Your task to perform on an android device: Open location settings Image 0: 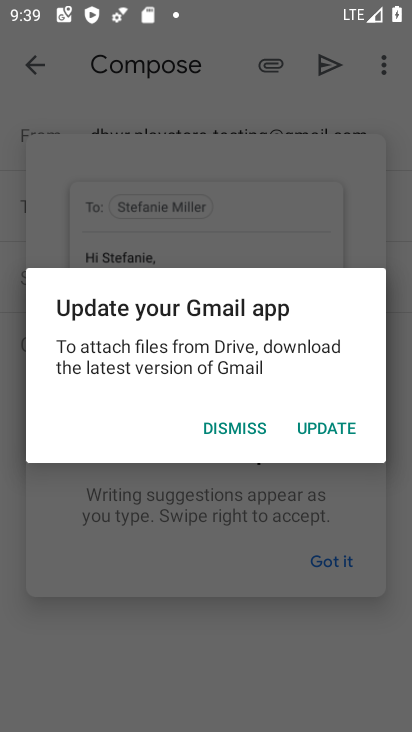
Step 0: press home button
Your task to perform on an android device: Open location settings Image 1: 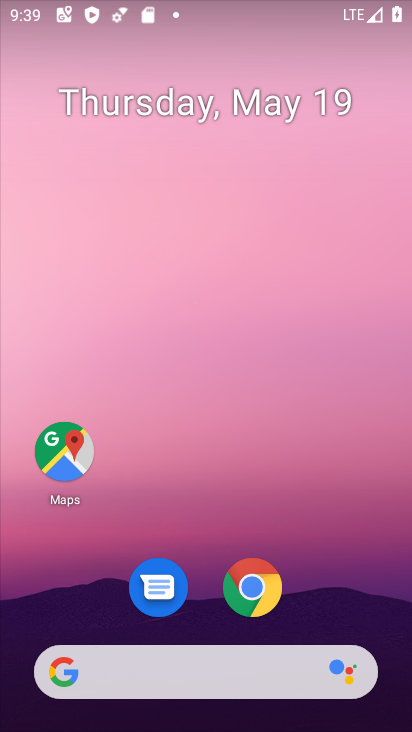
Step 1: drag from (202, 612) to (186, 211)
Your task to perform on an android device: Open location settings Image 2: 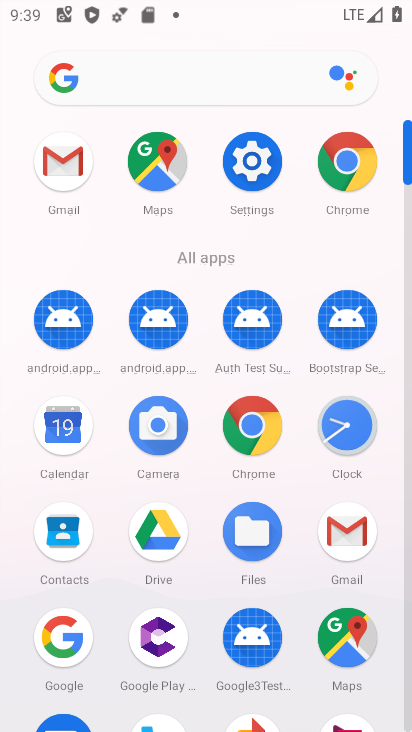
Step 2: click (249, 150)
Your task to perform on an android device: Open location settings Image 3: 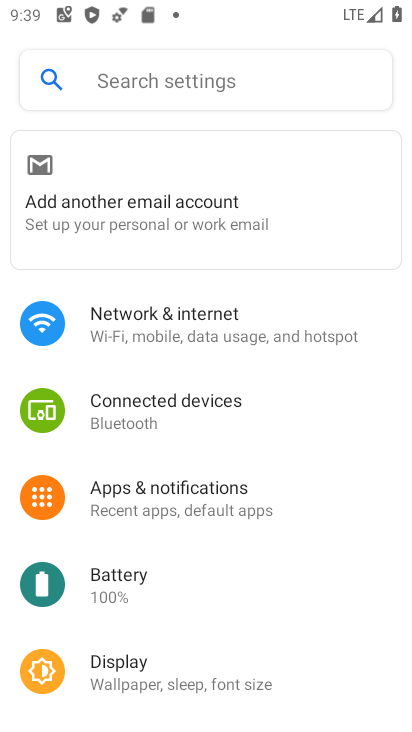
Step 3: drag from (83, 638) to (157, 173)
Your task to perform on an android device: Open location settings Image 4: 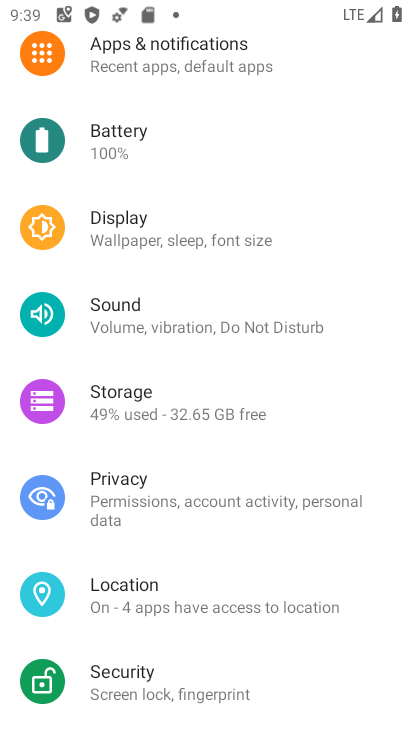
Step 4: click (153, 579)
Your task to perform on an android device: Open location settings Image 5: 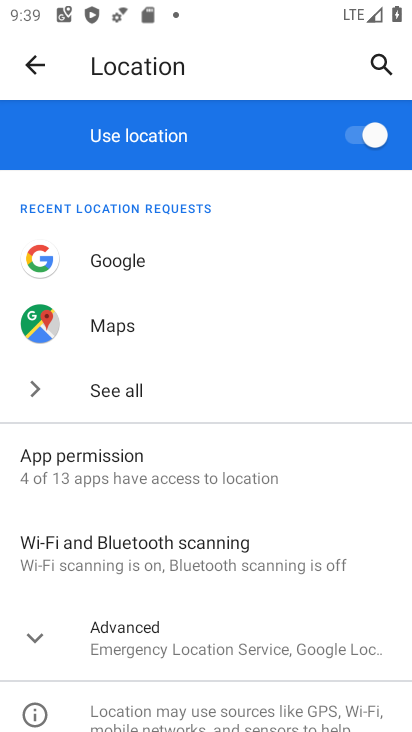
Step 5: task complete